Your task to perform on an android device: uninstall "Gboard" Image 0: 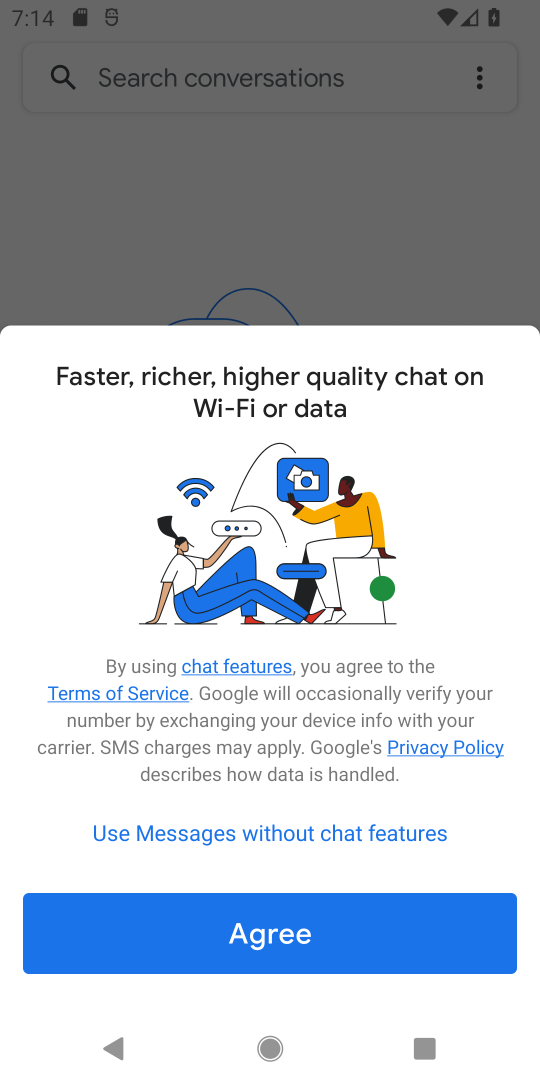
Step 0: press back button
Your task to perform on an android device: uninstall "Gboard" Image 1: 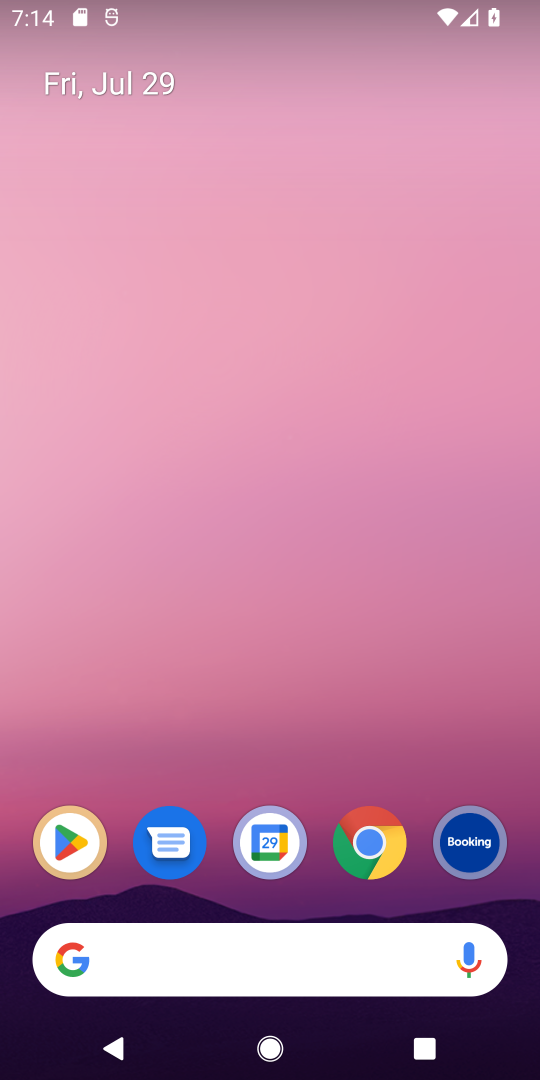
Step 1: press home button
Your task to perform on an android device: uninstall "Gboard" Image 2: 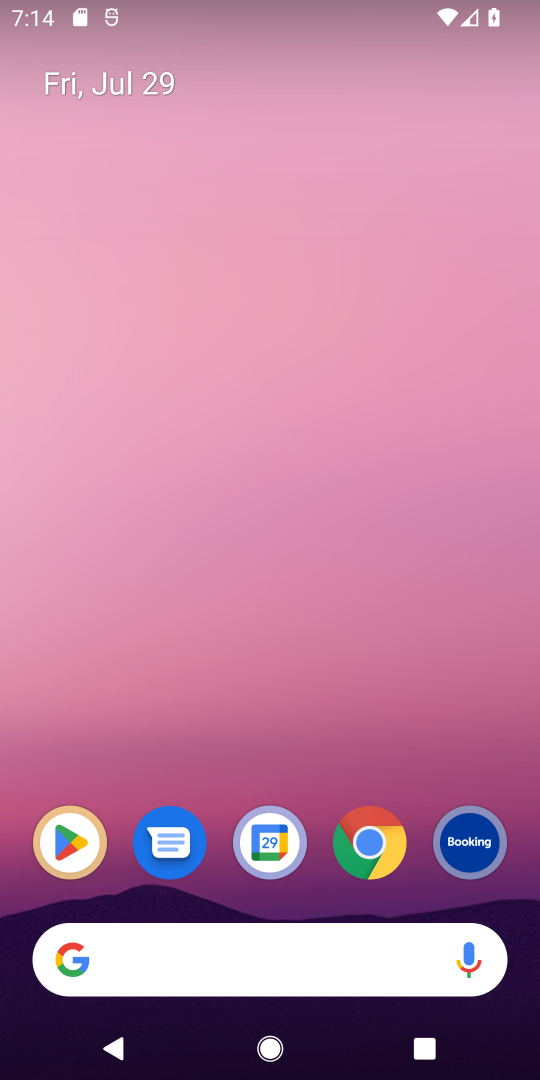
Step 2: drag from (317, 838) to (401, 232)
Your task to perform on an android device: uninstall "Gboard" Image 3: 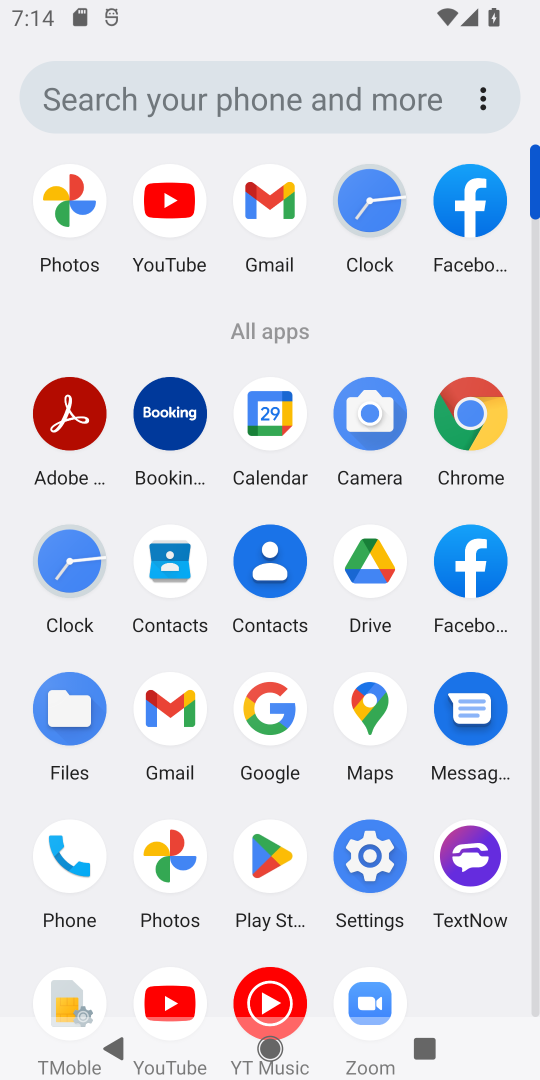
Step 3: click (263, 848)
Your task to perform on an android device: uninstall "Gboard" Image 4: 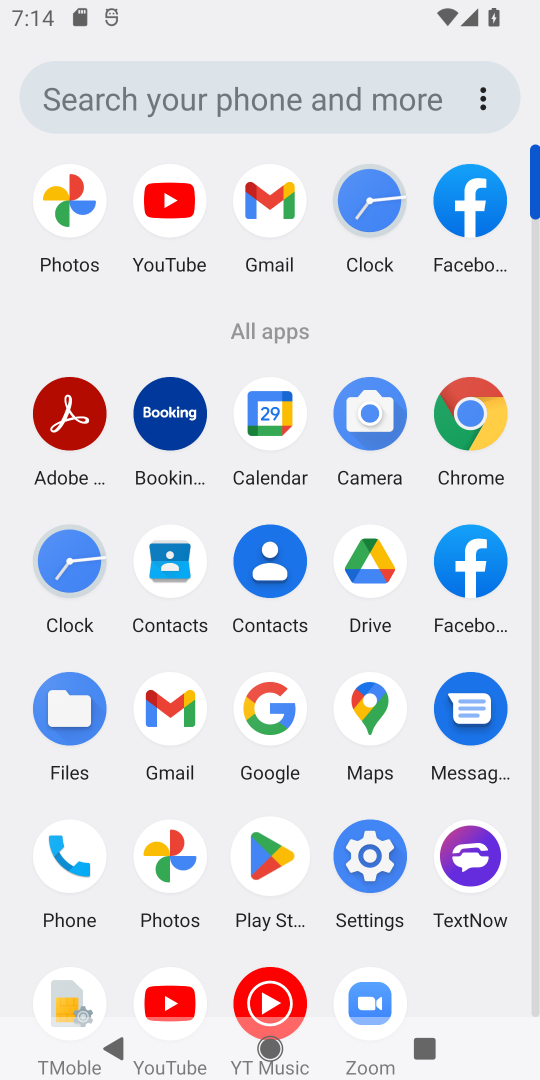
Step 4: click (263, 848)
Your task to perform on an android device: uninstall "Gboard" Image 5: 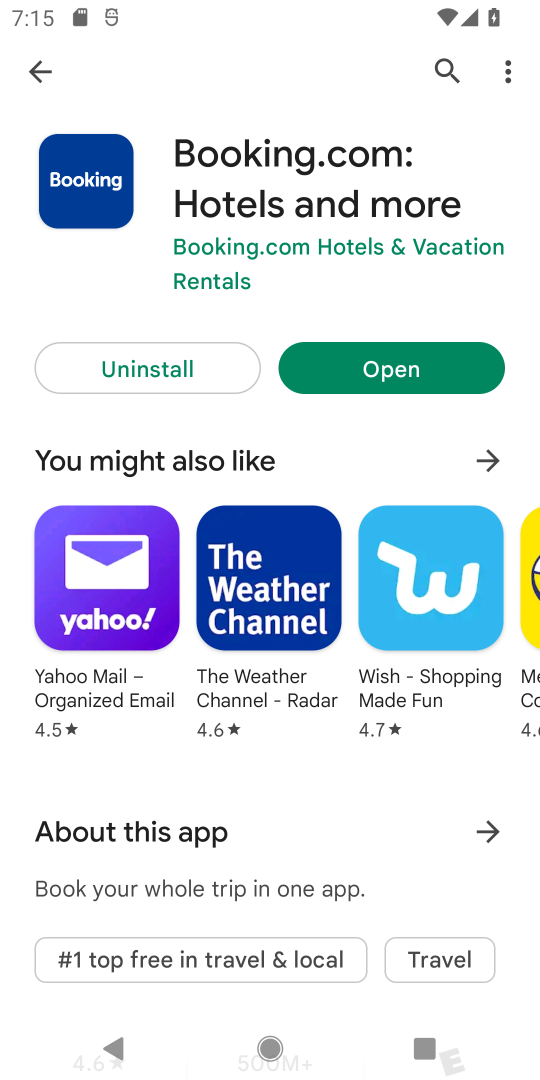
Step 5: click (173, 363)
Your task to perform on an android device: uninstall "Gboard" Image 6: 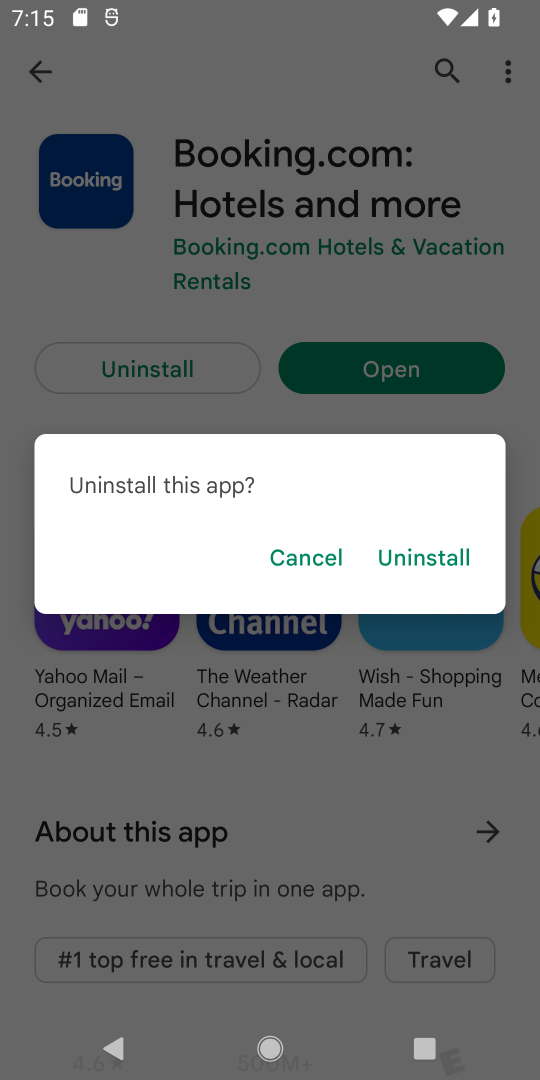
Step 6: click (419, 545)
Your task to perform on an android device: uninstall "Gboard" Image 7: 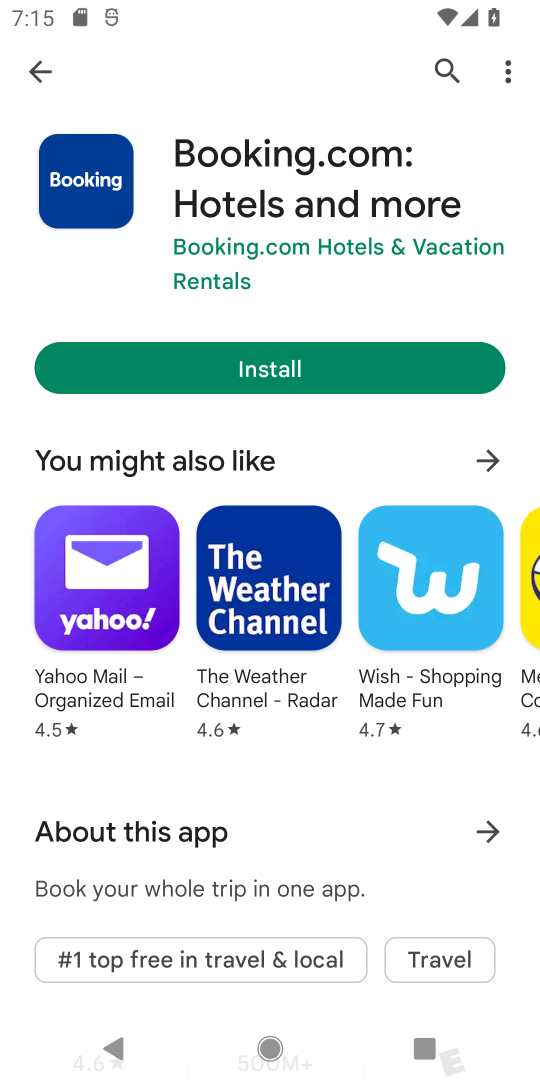
Step 7: click (29, 43)
Your task to perform on an android device: uninstall "Gboard" Image 8: 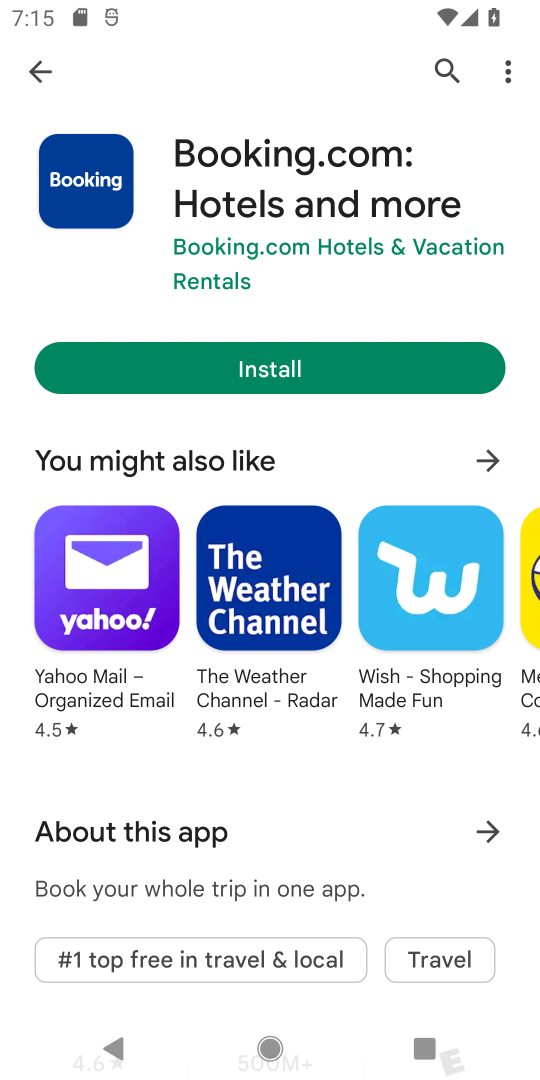
Step 8: click (31, 56)
Your task to perform on an android device: uninstall "Gboard" Image 9: 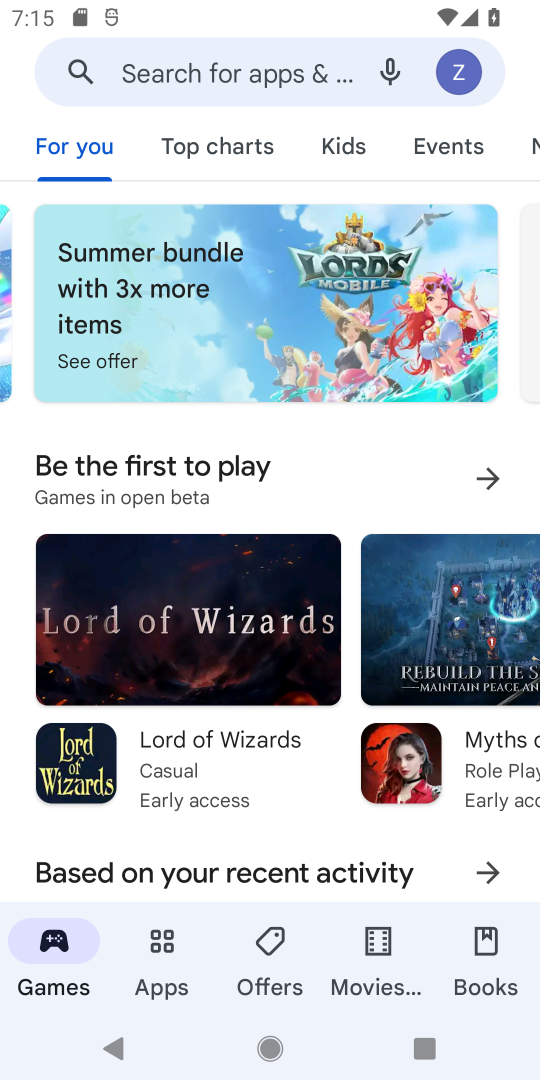
Step 9: click (160, 73)
Your task to perform on an android device: uninstall "Gboard" Image 10: 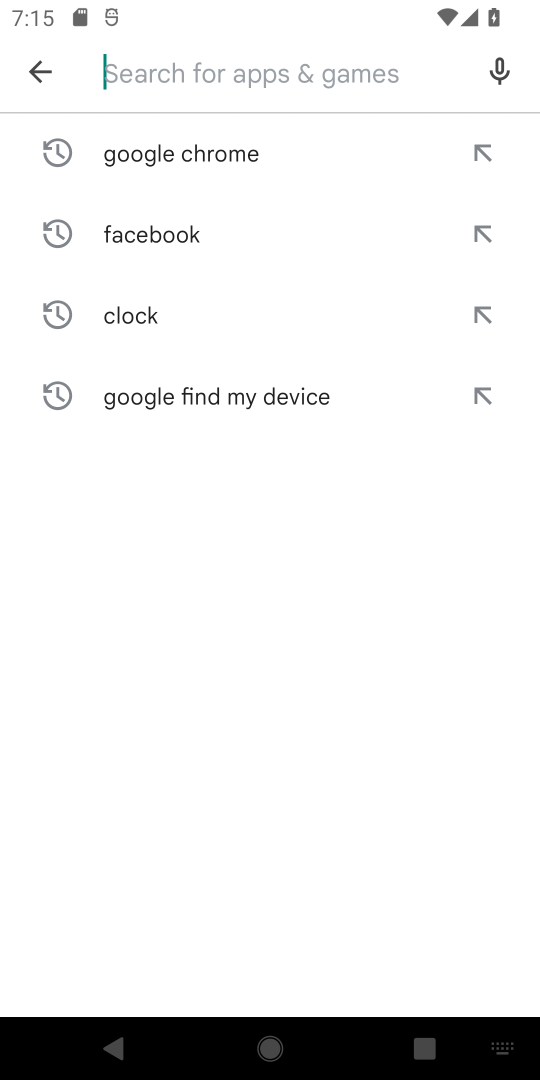
Step 10: type "Gboard"
Your task to perform on an android device: uninstall "Gboard" Image 11: 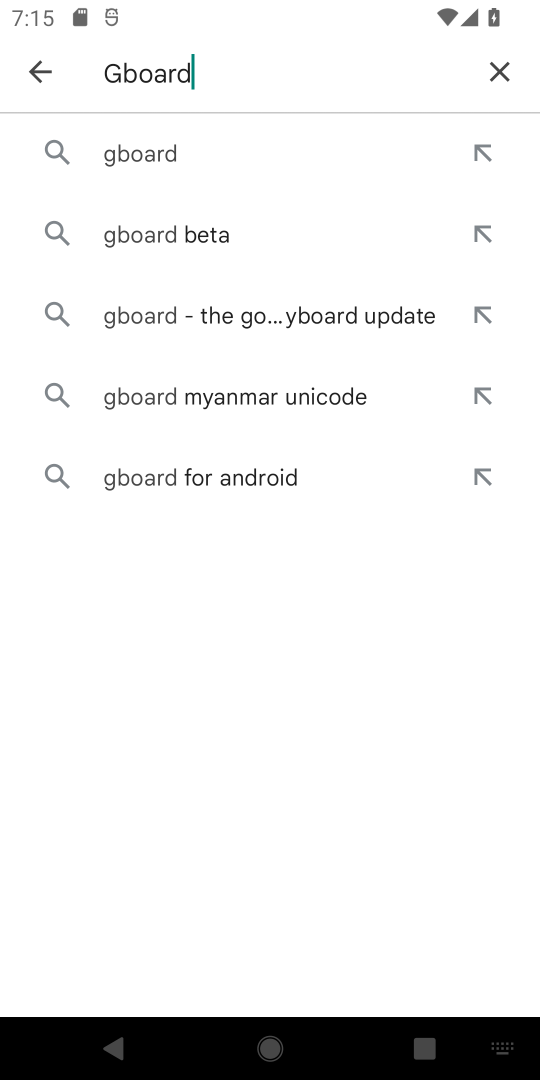
Step 11: click (126, 159)
Your task to perform on an android device: uninstall "Gboard" Image 12: 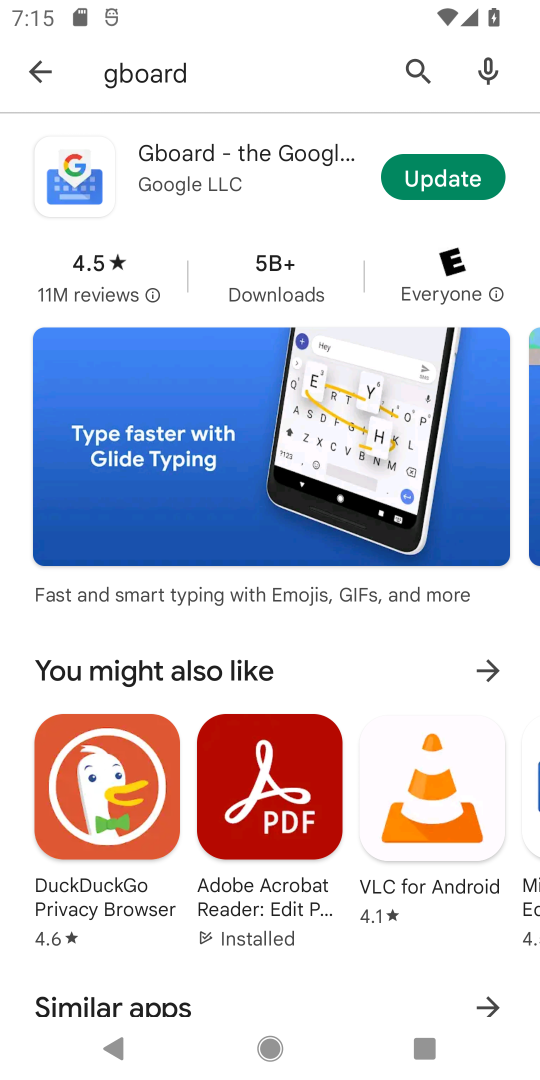
Step 12: click (476, 190)
Your task to perform on an android device: uninstall "Gboard" Image 13: 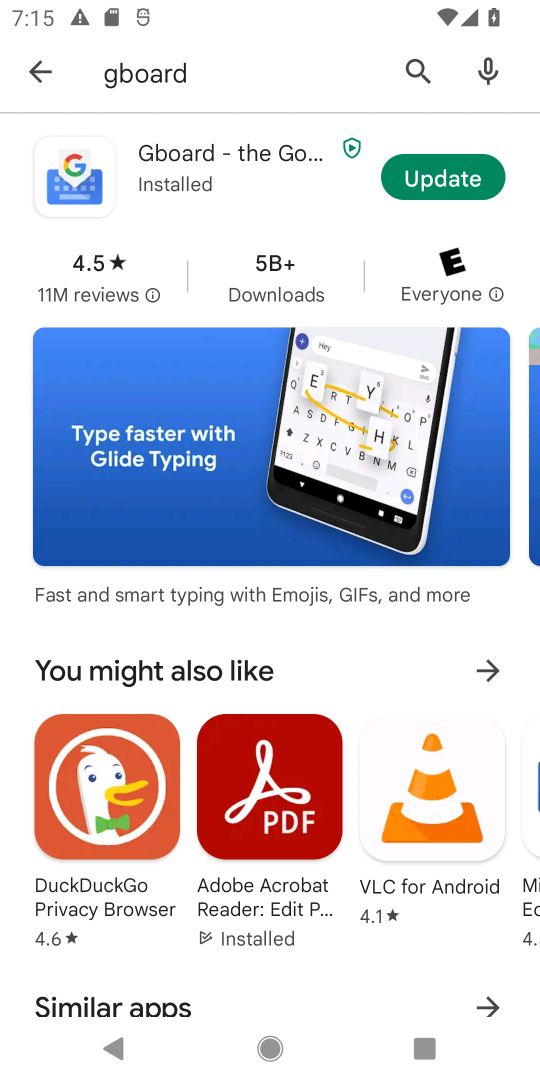
Step 13: click (464, 170)
Your task to perform on an android device: uninstall "Gboard" Image 14: 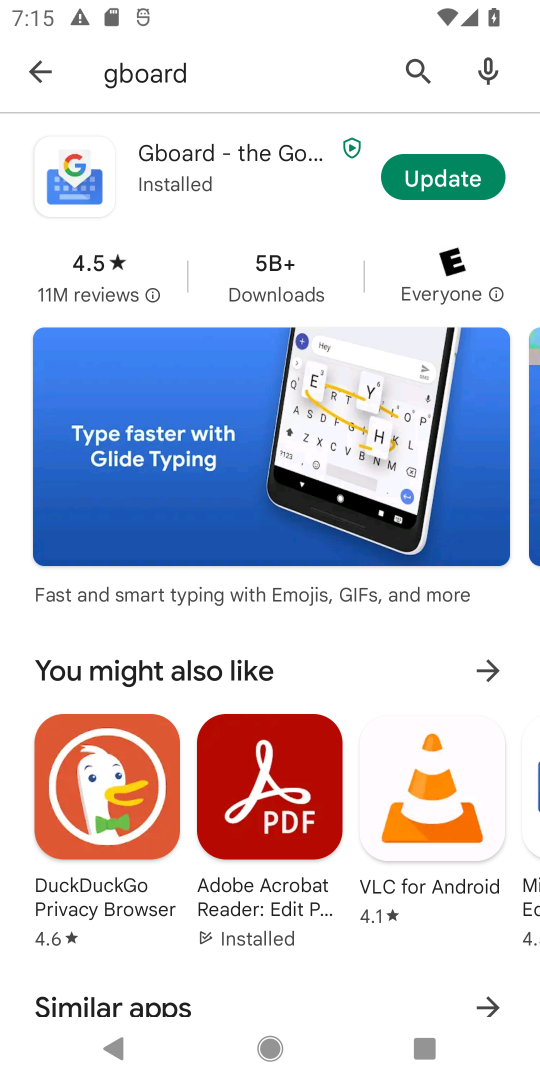
Step 14: click (395, 169)
Your task to perform on an android device: uninstall "Gboard" Image 15: 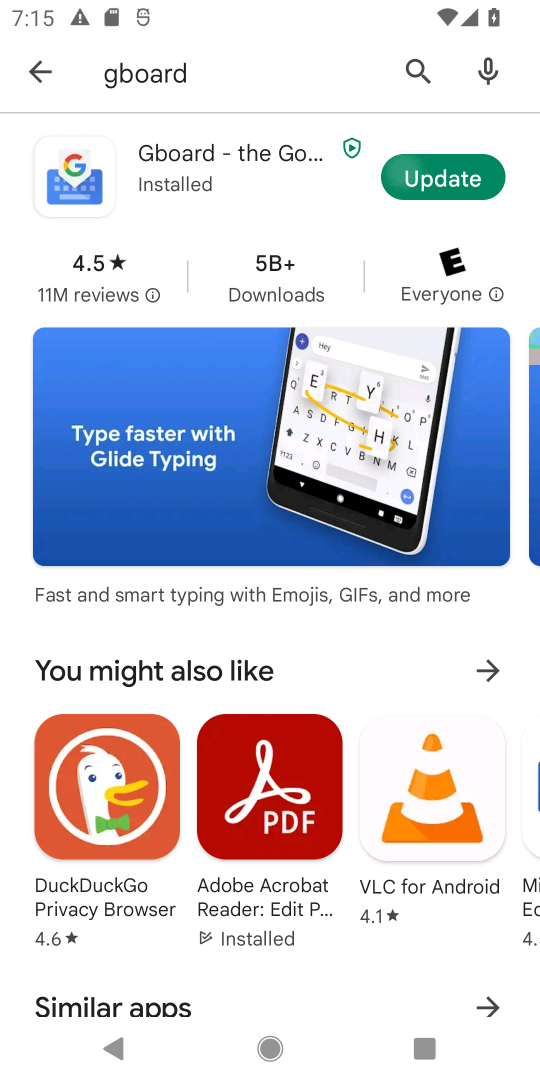
Step 15: click (395, 169)
Your task to perform on an android device: uninstall "Gboard" Image 16: 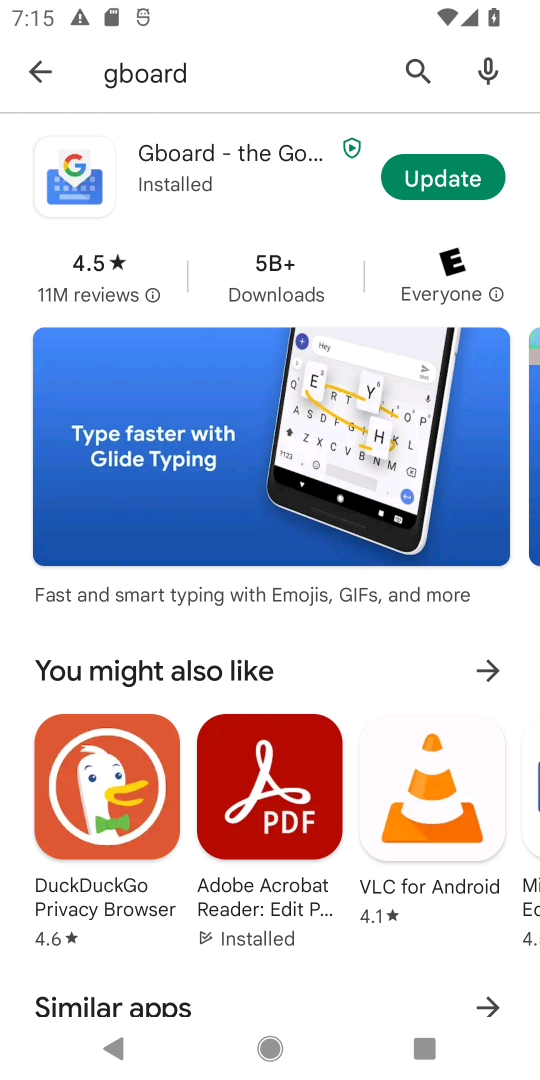
Step 16: click (447, 175)
Your task to perform on an android device: uninstall "Gboard" Image 17: 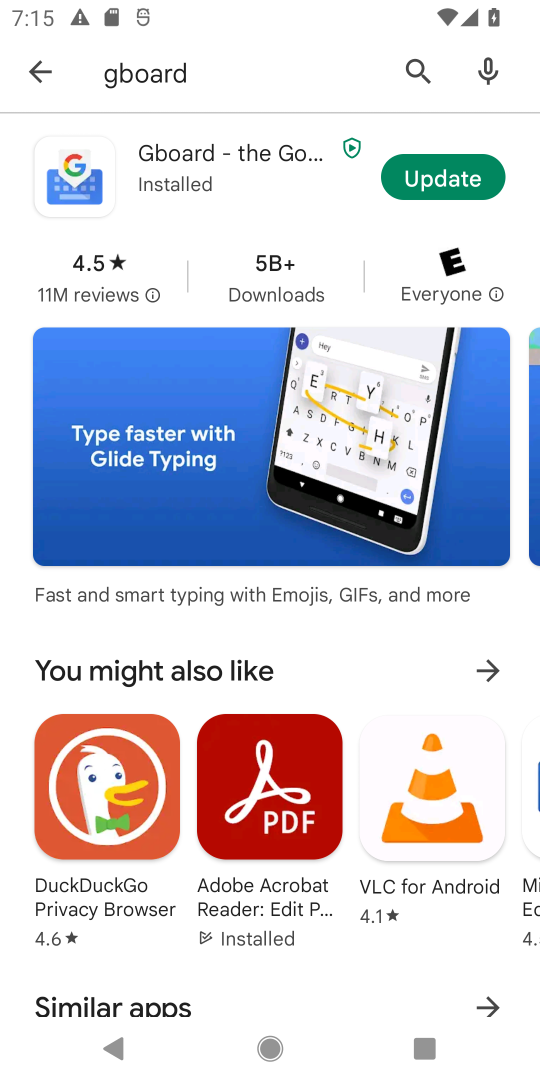
Step 17: task complete